Your task to perform on an android device: turn on airplane mode Image 0: 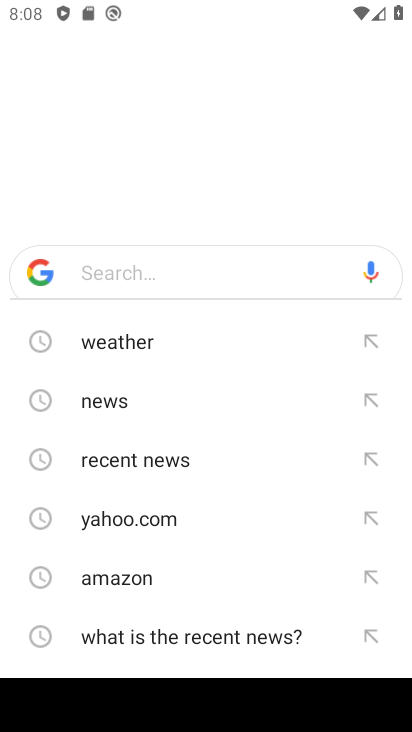
Step 0: drag from (220, 9) to (141, 540)
Your task to perform on an android device: turn on airplane mode Image 1: 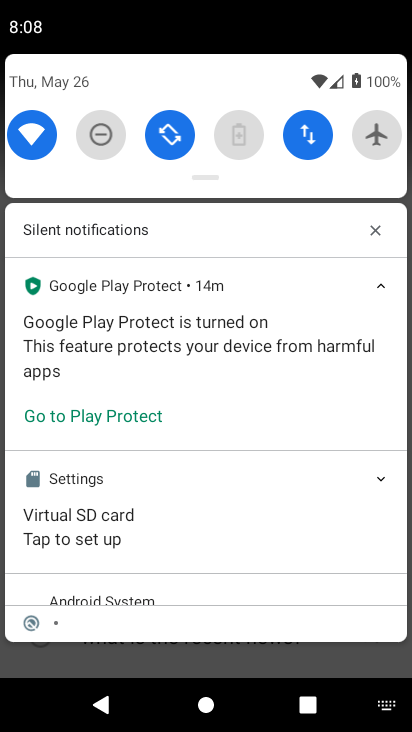
Step 1: click (383, 133)
Your task to perform on an android device: turn on airplane mode Image 2: 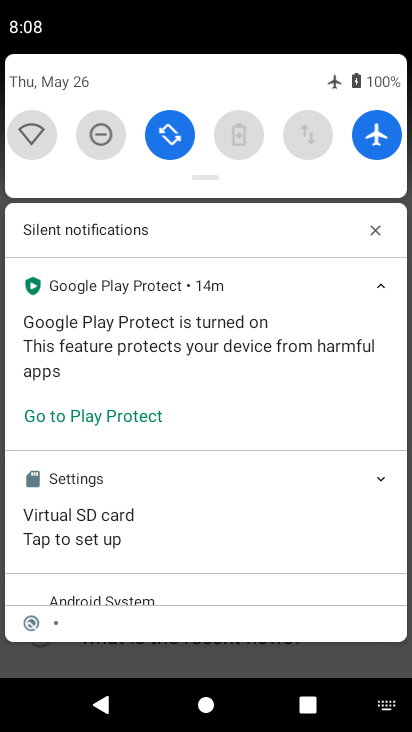
Step 2: task complete